Your task to perform on an android device: Go to Android settings Image 0: 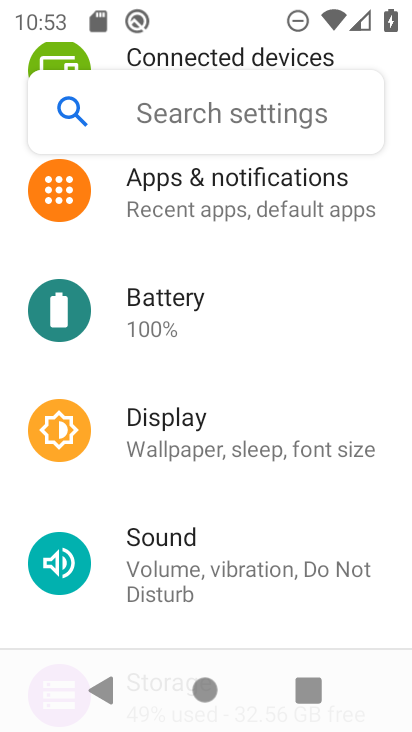
Step 0: drag from (335, 588) to (314, 118)
Your task to perform on an android device: Go to Android settings Image 1: 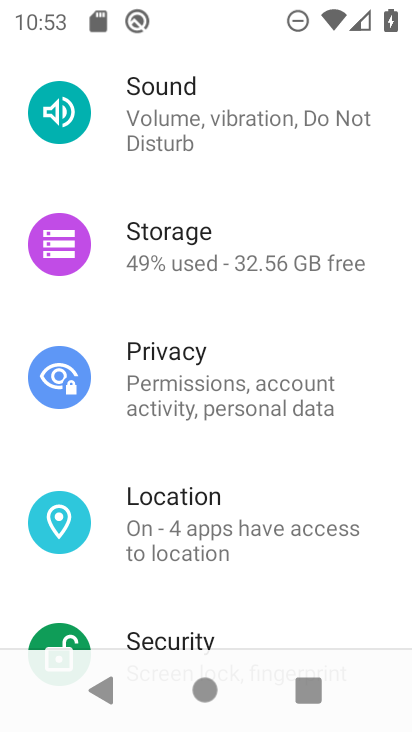
Step 1: drag from (268, 622) to (291, 191)
Your task to perform on an android device: Go to Android settings Image 2: 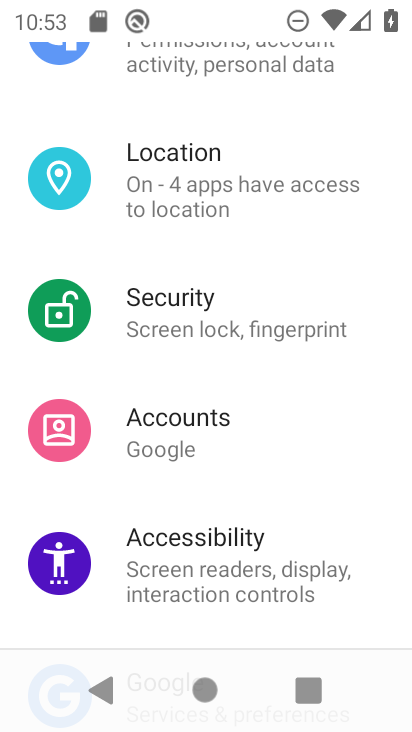
Step 2: drag from (329, 587) to (339, 157)
Your task to perform on an android device: Go to Android settings Image 3: 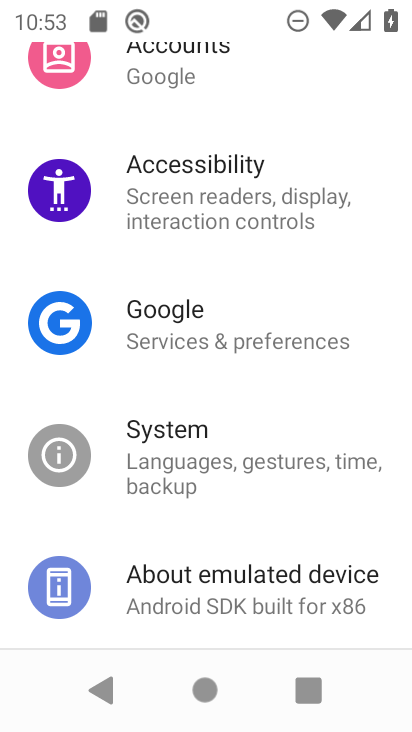
Step 3: click (190, 596)
Your task to perform on an android device: Go to Android settings Image 4: 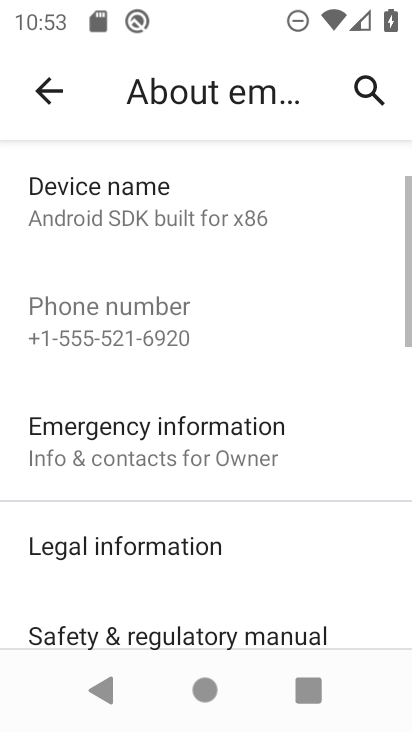
Step 4: task complete